Your task to perform on an android device: turn pop-ups on in chrome Image 0: 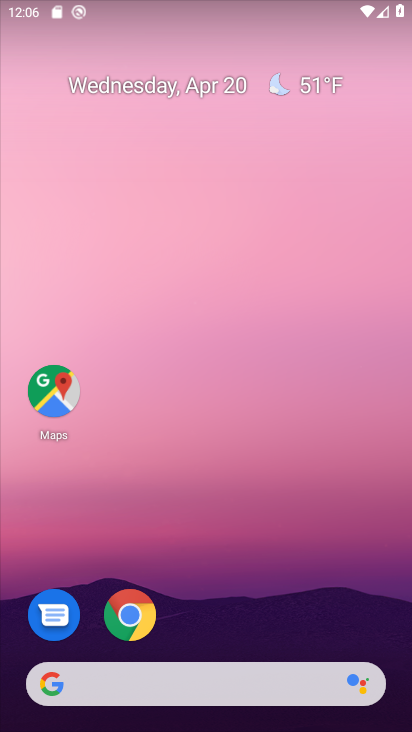
Step 0: click (138, 620)
Your task to perform on an android device: turn pop-ups on in chrome Image 1: 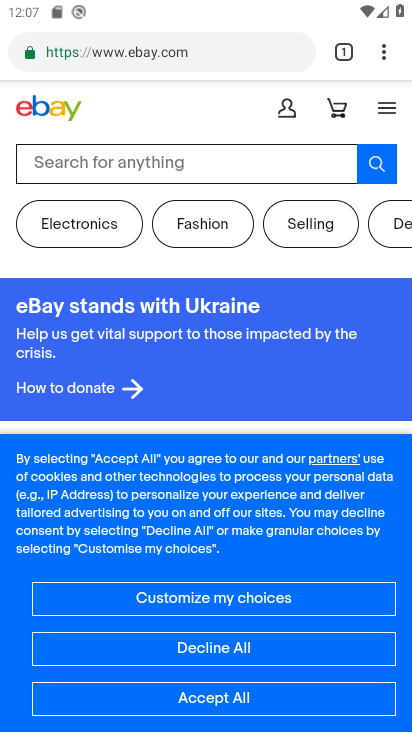
Step 1: drag from (385, 54) to (234, 631)
Your task to perform on an android device: turn pop-ups on in chrome Image 2: 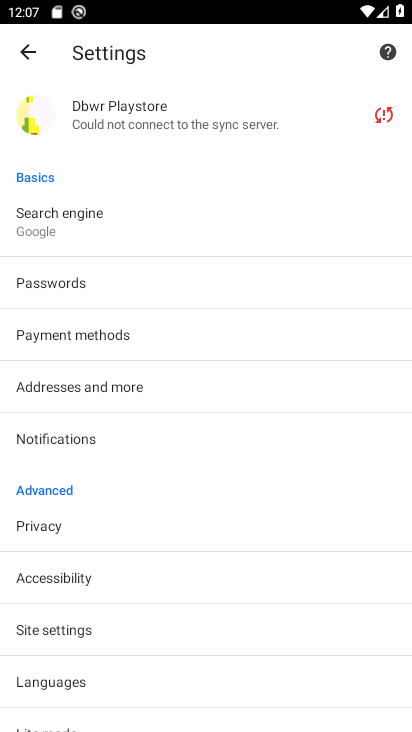
Step 2: drag from (128, 679) to (133, 297)
Your task to perform on an android device: turn pop-ups on in chrome Image 3: 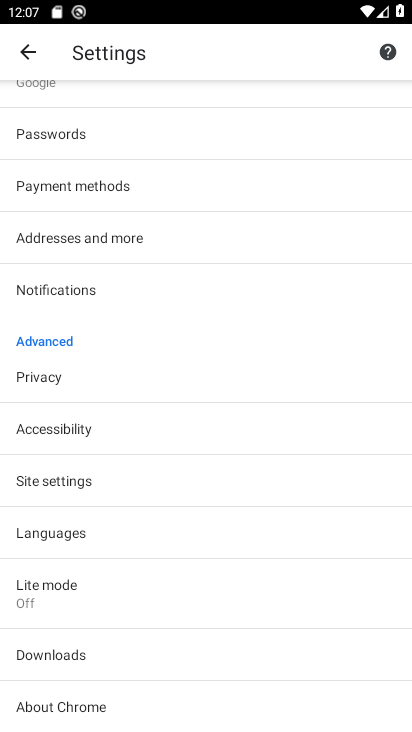
Step 3: click (82, 488)
Your task to perform on an android device: turn pop-ups on in chrome Image 4: 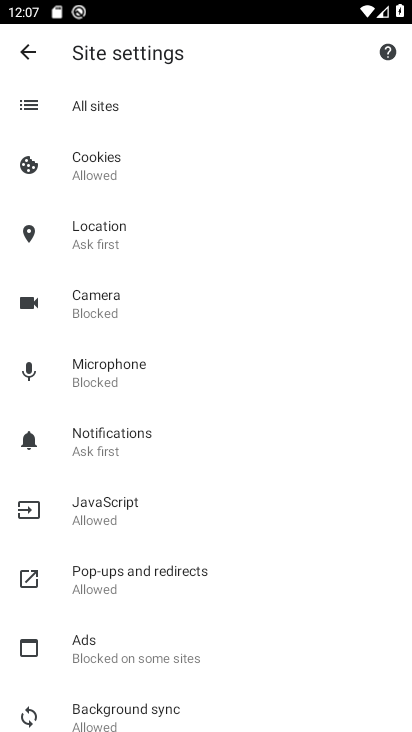
Step 4: click (150, 592)
Your task to perform on an android device: turn pop-ups on in chrome Image 5: 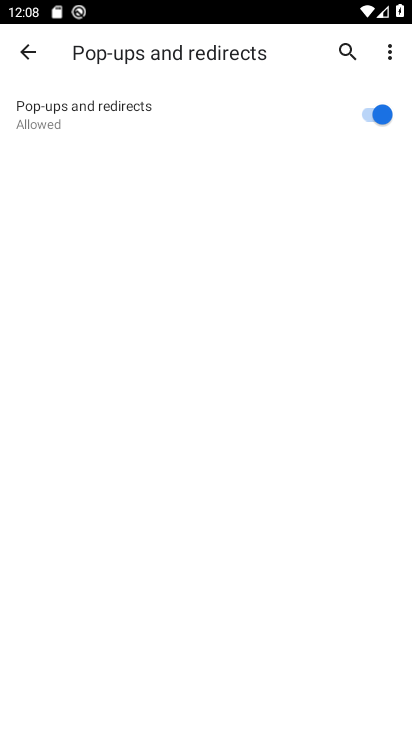
Step 5: task complete